Your task to perform on an android device: turn off location history Image 0: 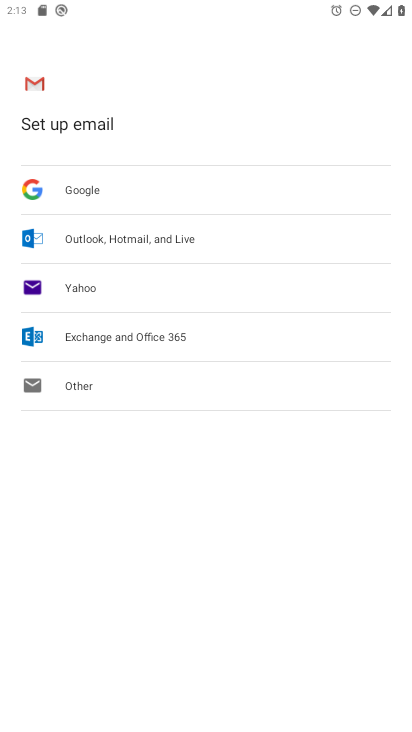
Step 0: press home button
Your task to perform on an android device: turn off location history Image 1: 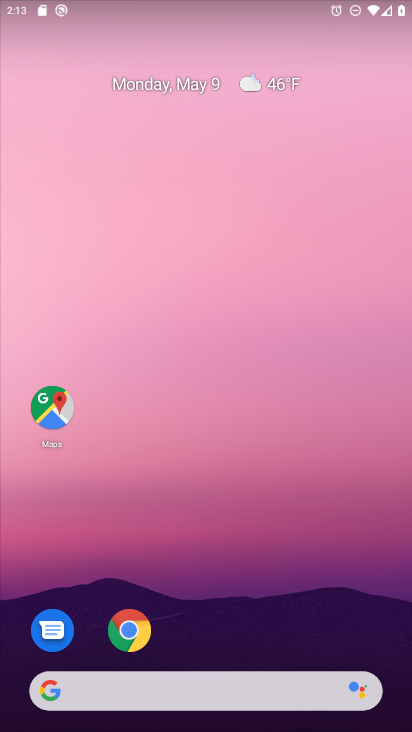
Step 1: drag from (330, 719) to (233, 272)
Your task to perform on an android device: turn off location history Image 2: 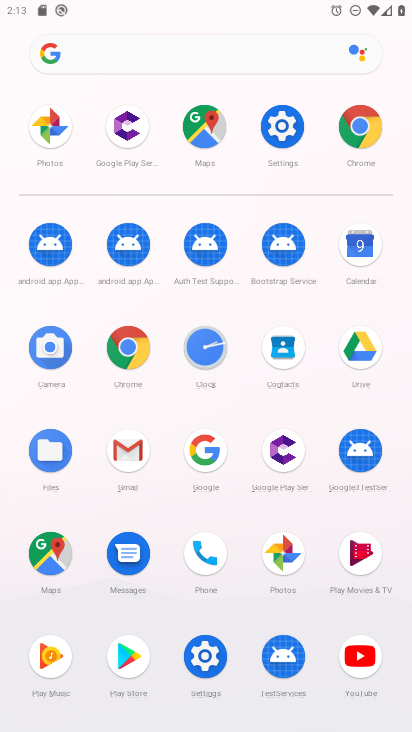
Step 2: click (277, 137)
Your task to perform on an android device: turn off location history Image 3: 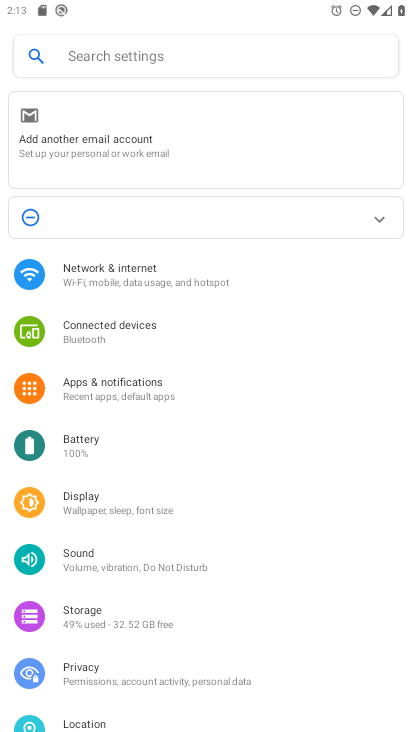
Step 3: click (210, 52)
Your task to perform on an android device: turn off location history Image 4: 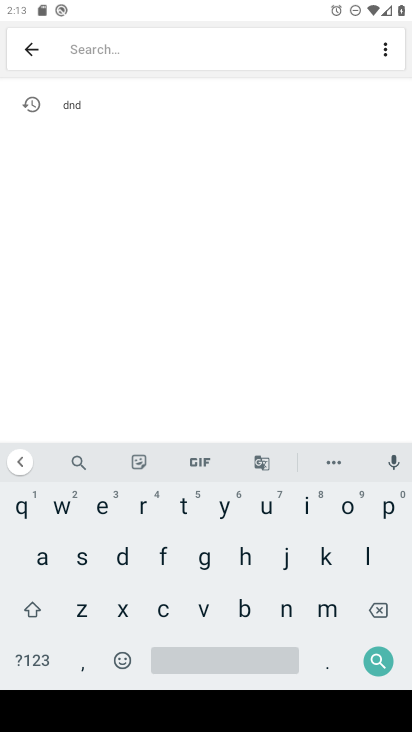
Step 4: click (372, 553)
Your task to perform on an android device: turn off location history Image 5: 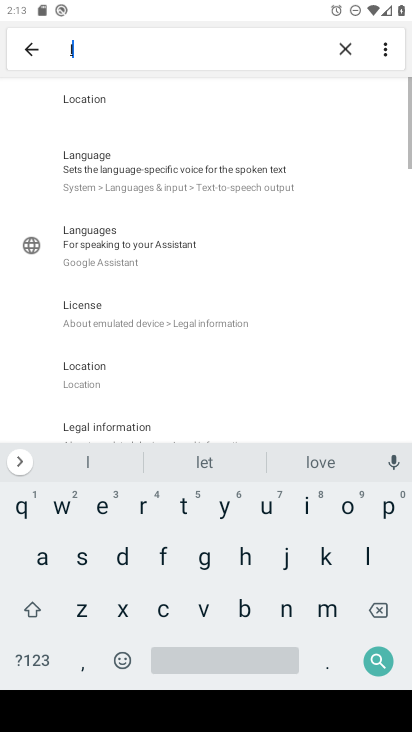
Step 5: click (348, 508)
Your task to perform on an android device: turn off location history Image 6: 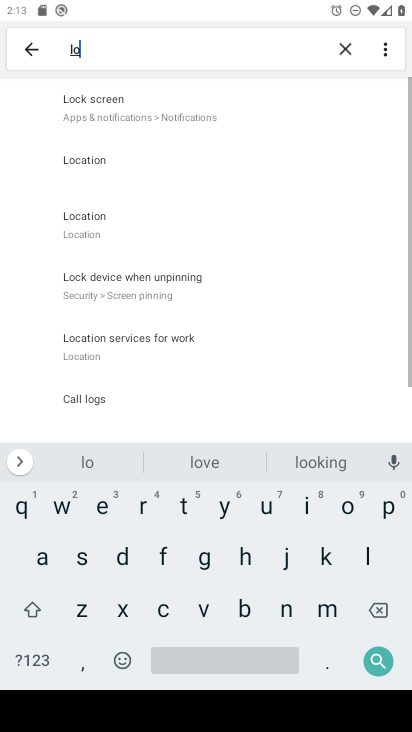
Step 6: click (155, 607)
Your task to perform on an android device: turn off location history Image 7: 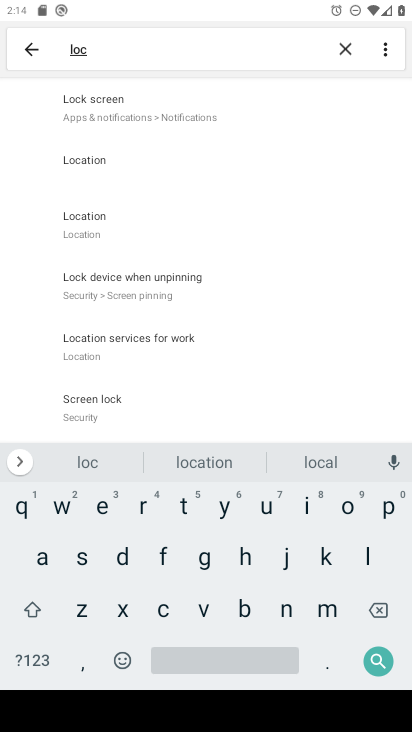
Step 7: click (82, 236)
Your task to perform on an android device: turn off location history Image 8: 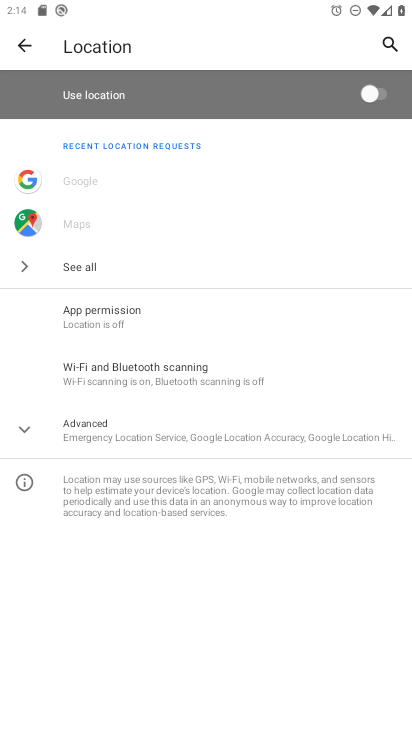
Step 8: click (71, 421)
Your task to perform on an android device: turn off location history Image 9: 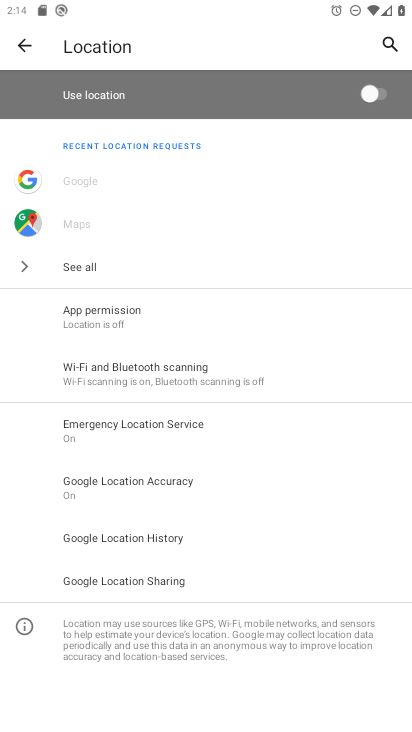
Step 9: click (144, 536)
Your task to perform on an android device: turn off location history Image 10: 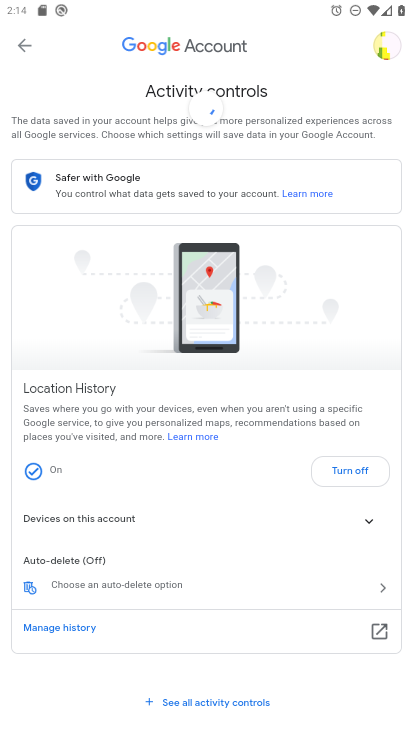
Step 10: task complete